Your task to perform on an android device: remove spam from my inbox in the gmail app Image 0: 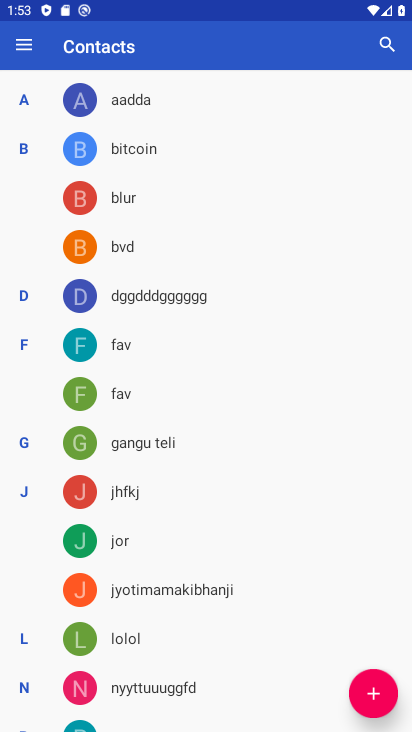
Step 0: press home button
Your task to perform on an android device: remove spam from my inbox in the gmail app Image 1: 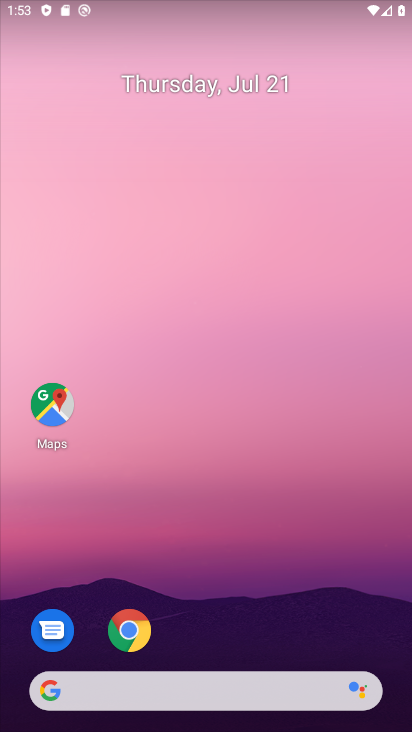
Step 1: drag from (252, 650) to (90, 7)
Your task to perform on an android device: remove spam from my inbox in the gmail app Image 2: 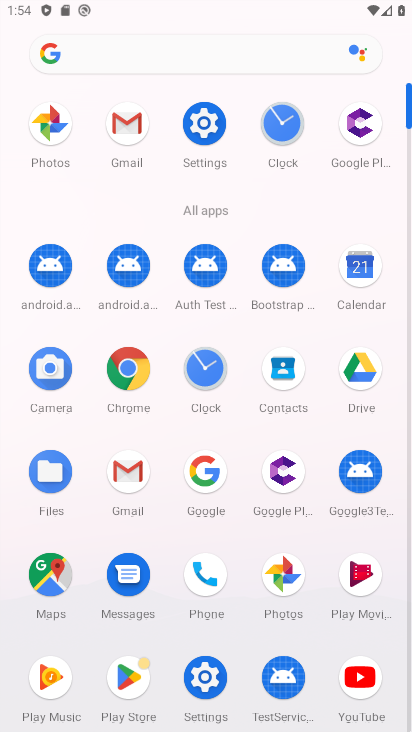
Step 2: click (124, 132)
Your task to perform on an android device: remove spam from my inbox in the gmail app Image 3: 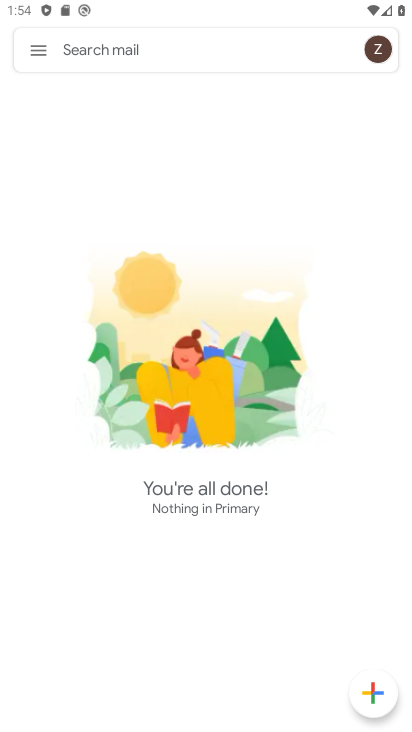
Step 3: click (49, 49)
Your task to perform on an android device: remove spam from my inbox in the gmail app Image 4: 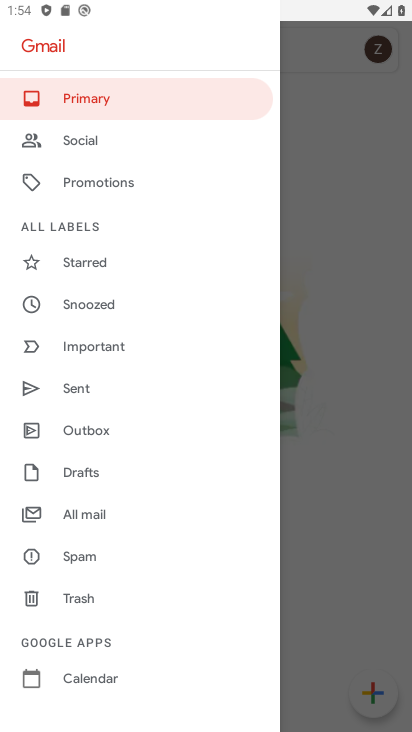
Step 4: click (113, 548)
Your task to perform on an android device: remove spam from my inbox in the gmail app Image 5: 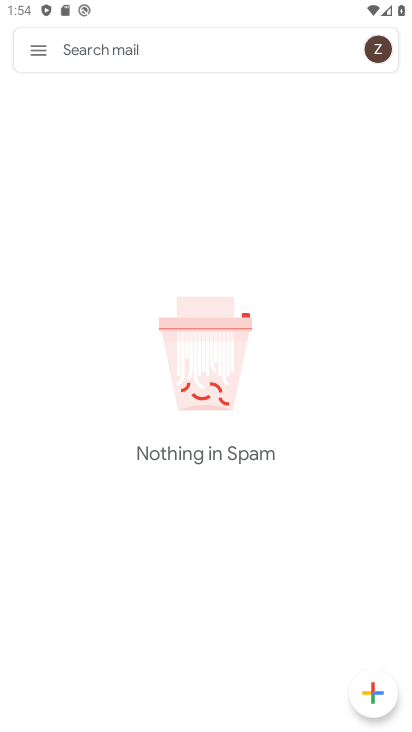
Step 5: task complete